Your task to perform on an android device: see tabs open on other devices in the chrome app Image 0: 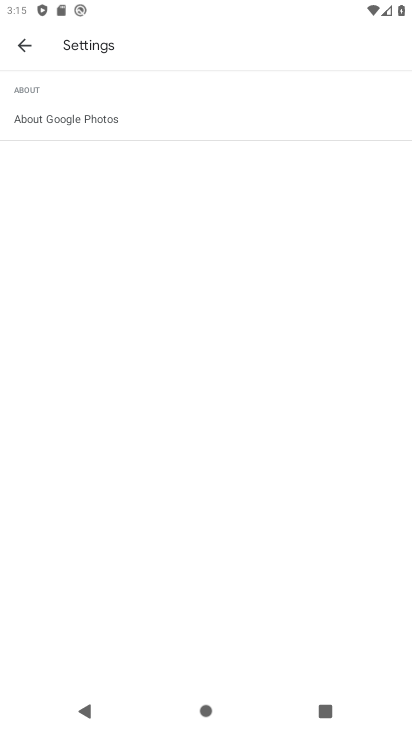
Step 0: press home button
Your task to perform on an android device: see tabs open on other devices in the chrome app Image 1: 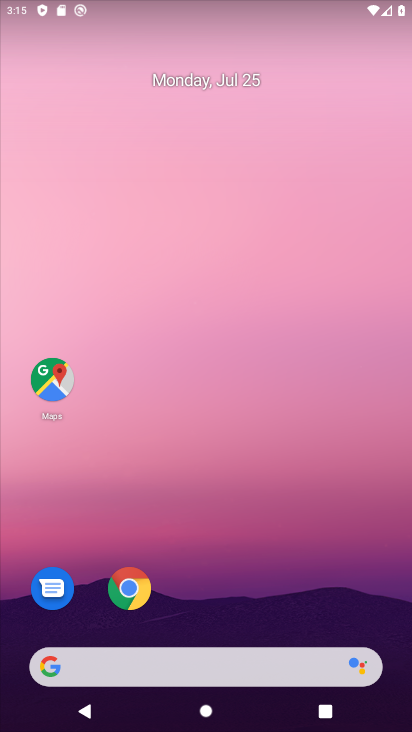
Step 1: click (142, 598)
Your task to perform on an android device: see tabs open on other devices in the chrome app Image 2: 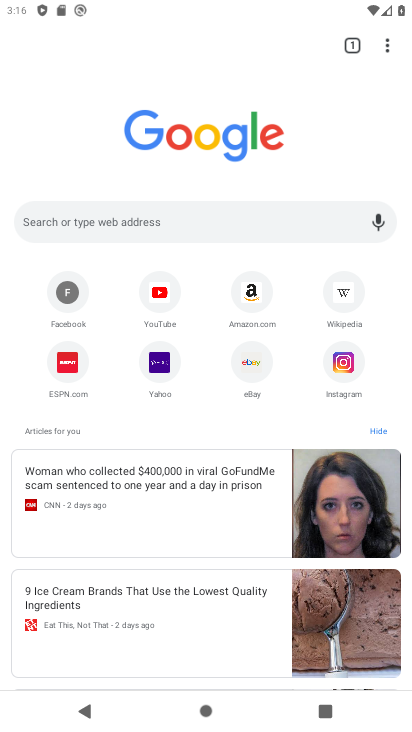
Step 2: click (388, 41)
Your task to perform on an android device: see tabs open on other devices in the chrome app Image 3: 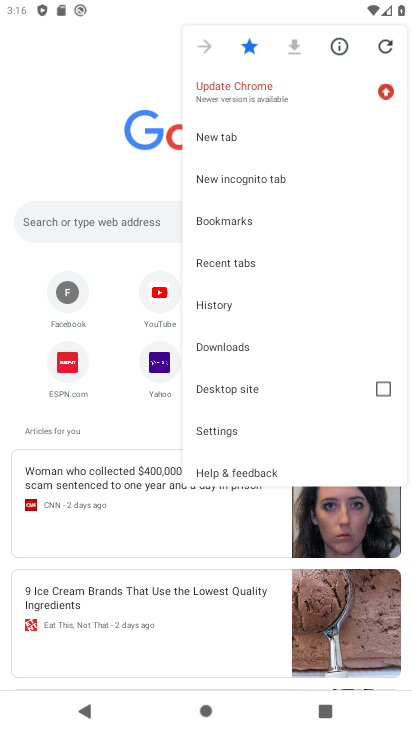
Step 3: click (229, 253)
Your task to perform on an android device: see tabs open on other devices in the chrome app Image 4: 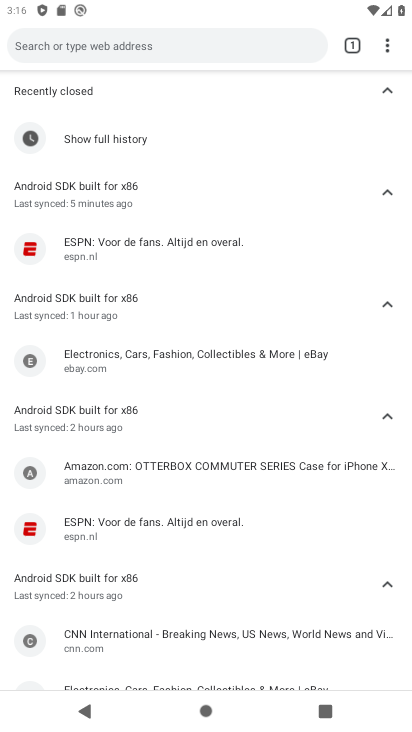
Step 4: task complete